Your task to perform on an android device: change the upload size in google photos Image 0: 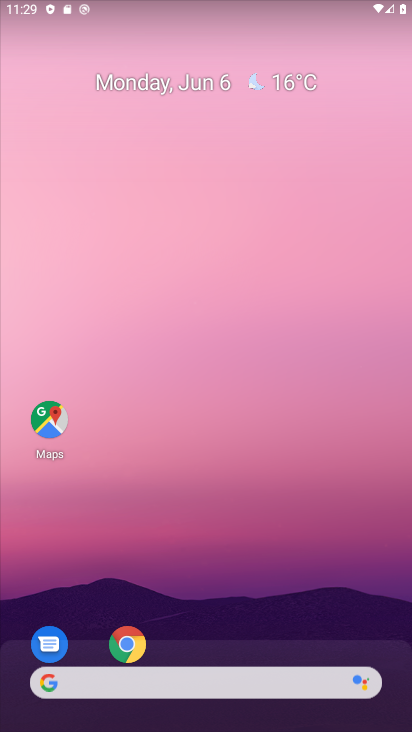
Step 0: drag from (160, 659) to (255, 212)
Your task to perform on an android device: change the upload size in google photos Image 1: 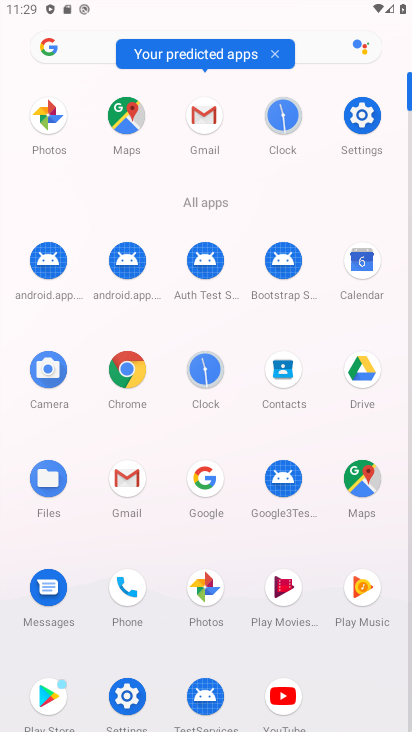
Step 1: click (201, 590)
Your task to perform on an android device: change the upload size in google photos Image 2: 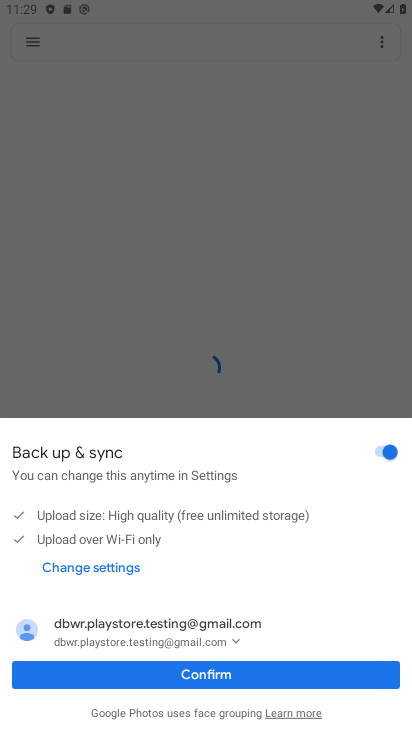
Step 2: click (238, 669)
Your task to perform on an android device: change the upload size in google photos Image 3: 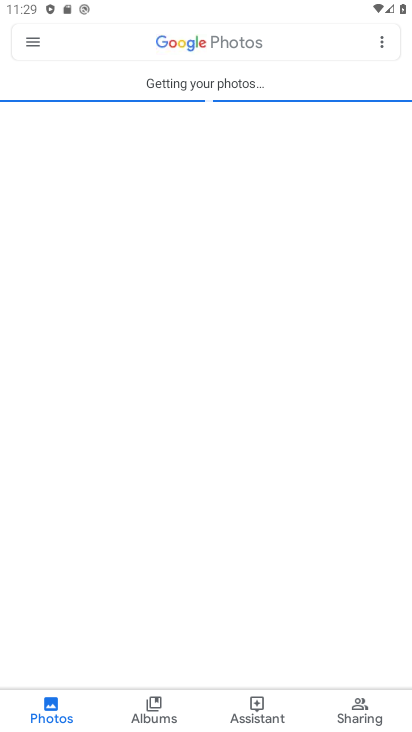
Step 3: click (27, 52)
Your task to perform on an android device: change the upload size in google photos Image 4: 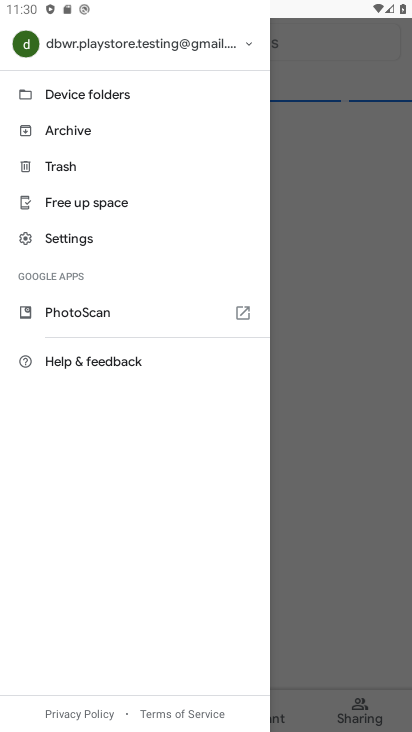
Step 4: click (139, 241)
Your task to perform on an android device: change the upload size in google photos Image 5: 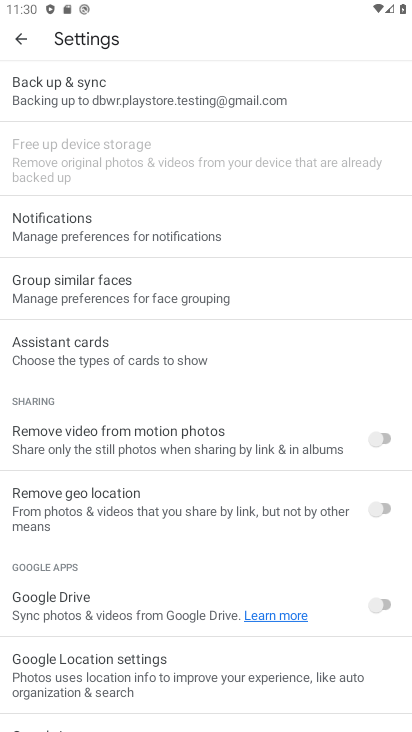
Step 5: click (183, 84)
Your task to perform on an android device: change the upload size in google photos Image 6: 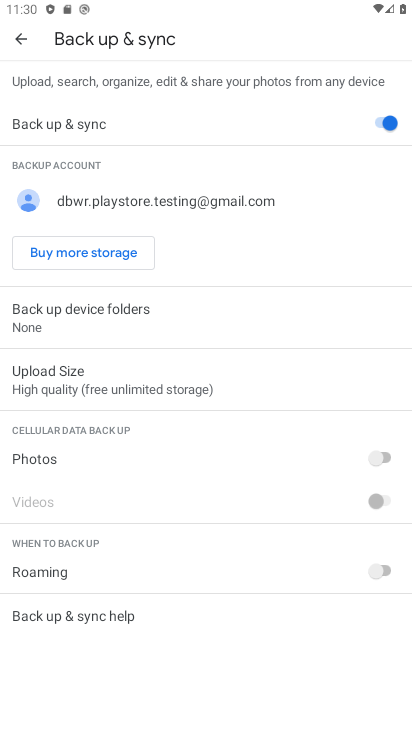
Step 6: click (148, 391)
Your task to perform on an android device: change the upload size in google photos Image 7: 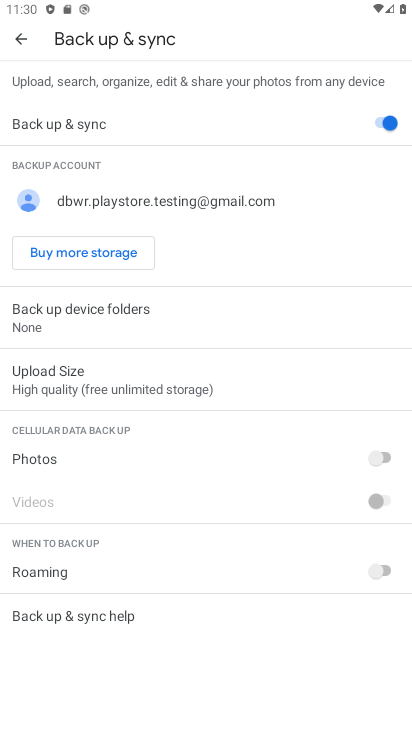
Step 7: click (148, 396)
Your task to perform on an android device: change the upload size in google photos Image 8: 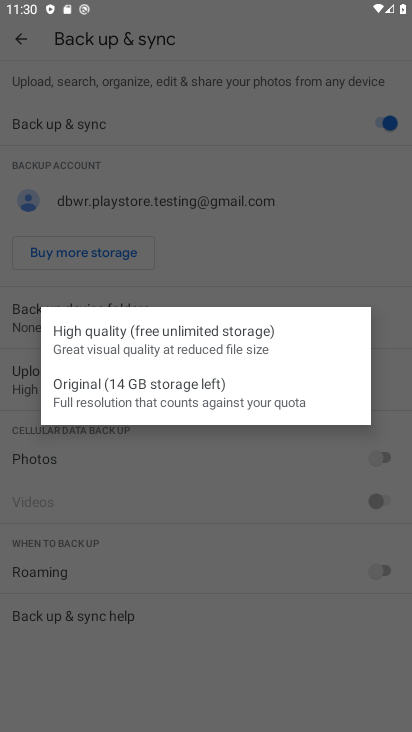
Step 8: click (169, 414)
Your task to perform on an android device: change the upload size in google photos Image 9: 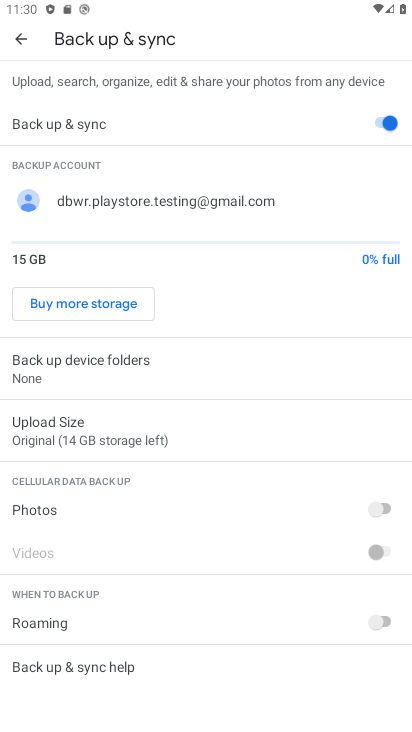
Step 9: task complete